Your task to perform on an android device: check out phone information Image 0: 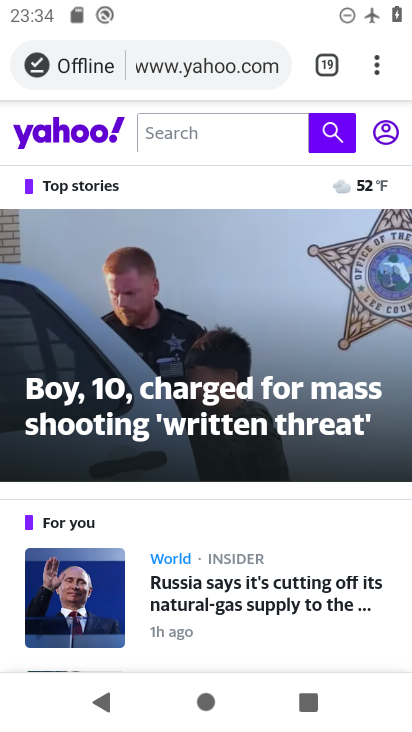
Step 0: press home button
Your task to perform on an android device: check out phone information Image 1: 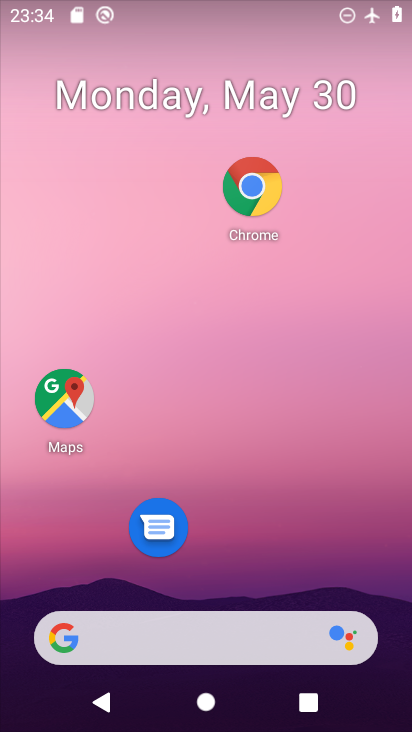
Step 1: drag from (285, 558) to (273, 268)
Your task to perform on an android device: check out phone information Image 2: 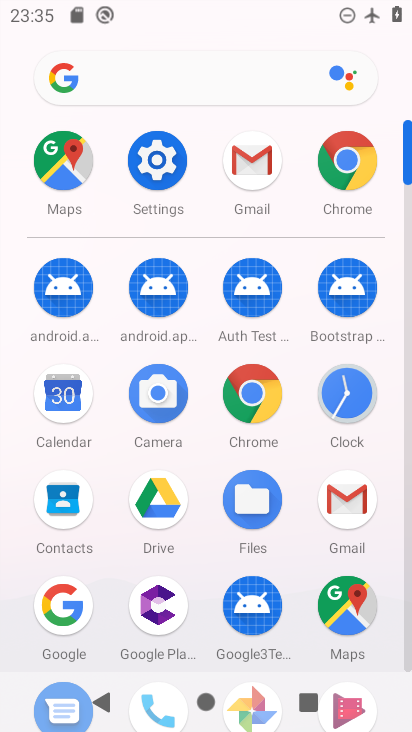
Step 2: click (162, 160)
Your task to perform on an android device: check out phone information Image 3: 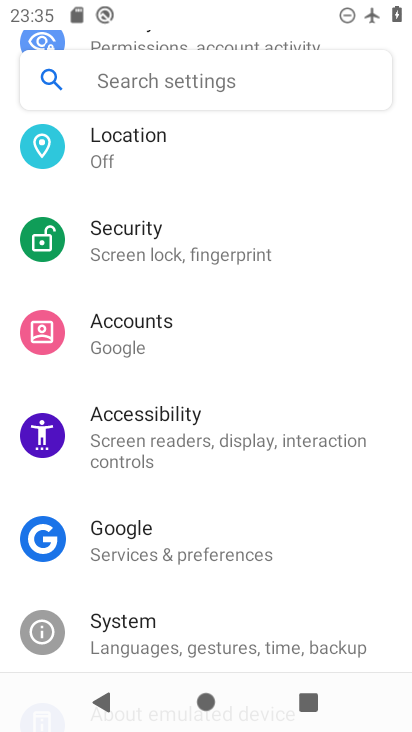
Step 3: drag from (264, 596) to (319, 77)
Your task to perform on an android device: check out phone information Image 4: 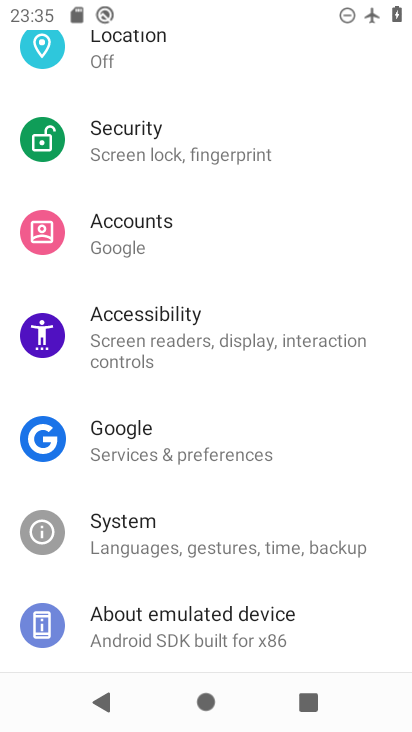
Step 4: click (207, 628)
Your task to perform on an android device: check out phone information Image 5: 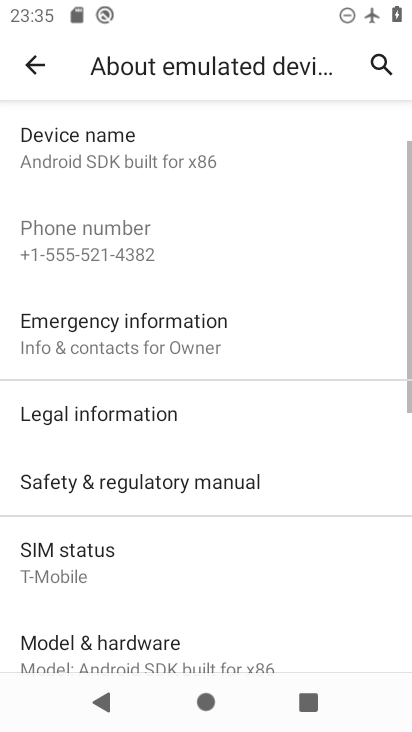
Step 5: task complete